Your task to perform on an android device: remove spam from my inbox in the gmail app Image 0: 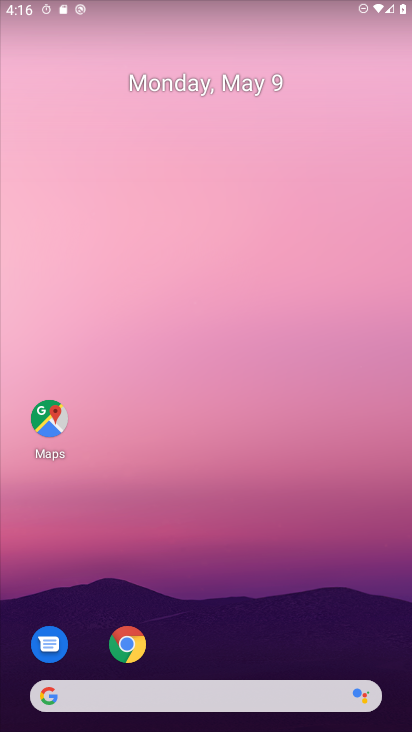
Step 0: drag from (281, 643) to (109, 45)
Your task to perform on an android device: remove spam from my inbox in the gmail app Image 1: 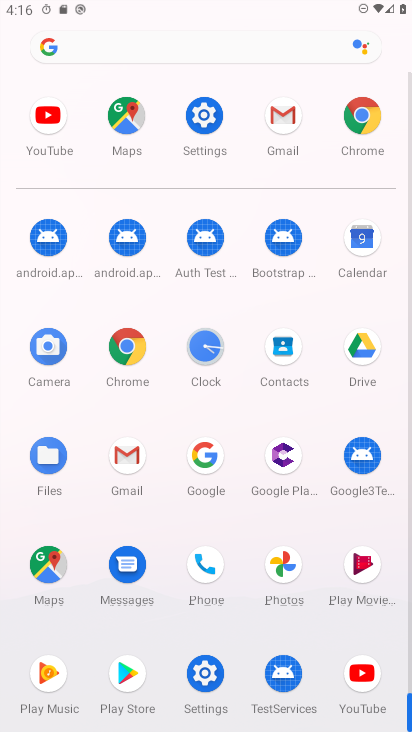
Step 1: click (281, 147)
Your task to perform on an android device: remove spam from my inbox in the gmail app Image 2: 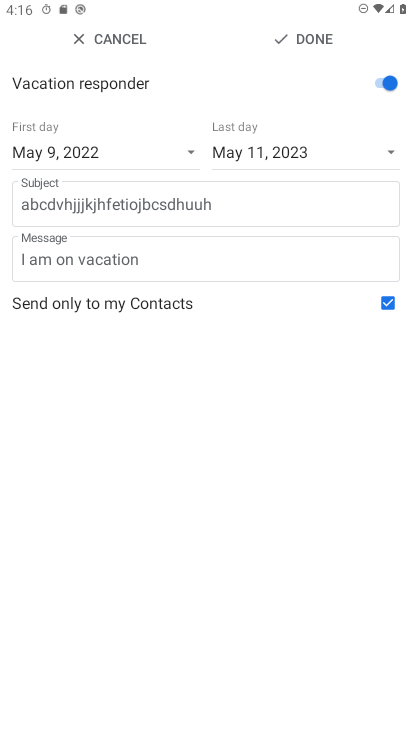
Step 2: press back button
Your task to perform on an android device: remove spam from my inbox in the gmail app Image 3: 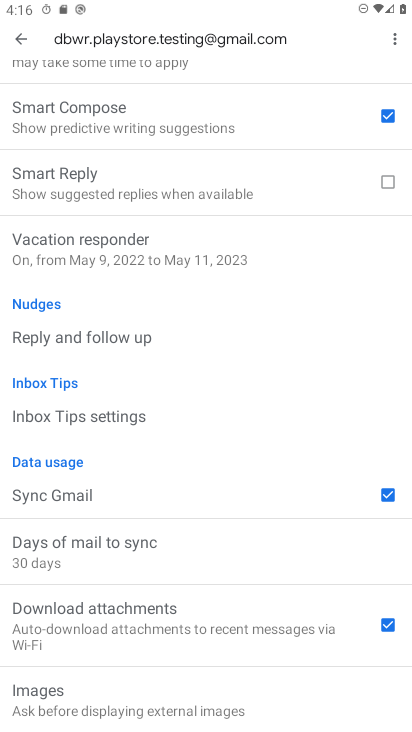
Step 3: press back button
Your task to perform on an android device: remove spam from my inbox in the gmail app Image 4: 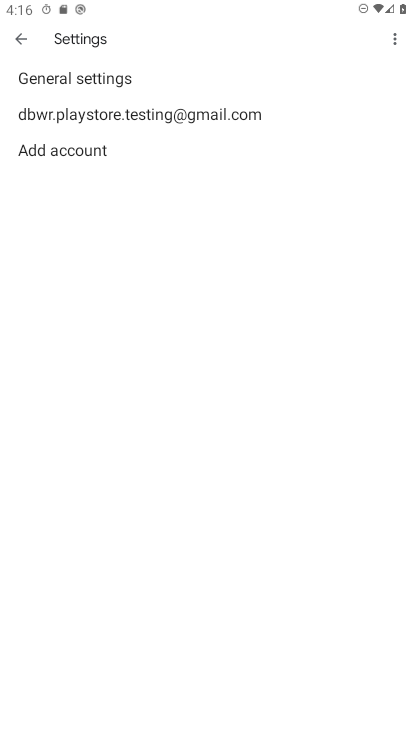
Step 4: press back button
Your task to perform on an android device: remove spam from my inbox in the gmail app Image 5: 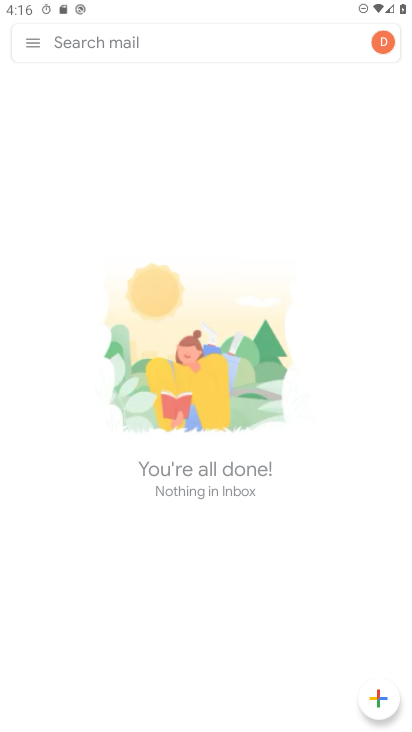
Step 5: click (29, 45)
Your task to perform on an android device: remove spam from my inbox in the gmail app Image 6: 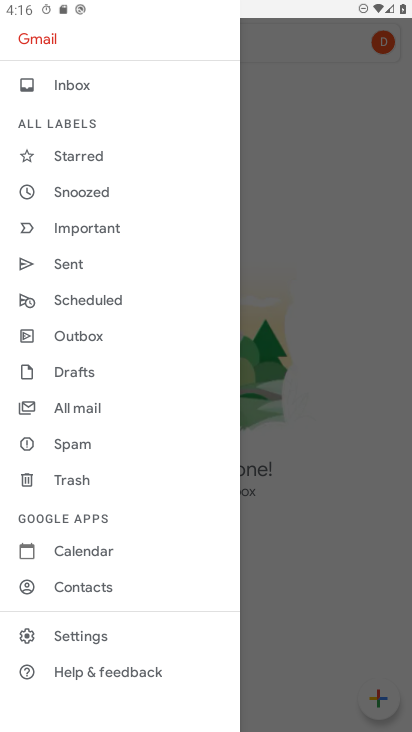
Step 6: click (80, 442)
Your task to perform on an android device: remove spam from my inbox in the gmail app Image 7: 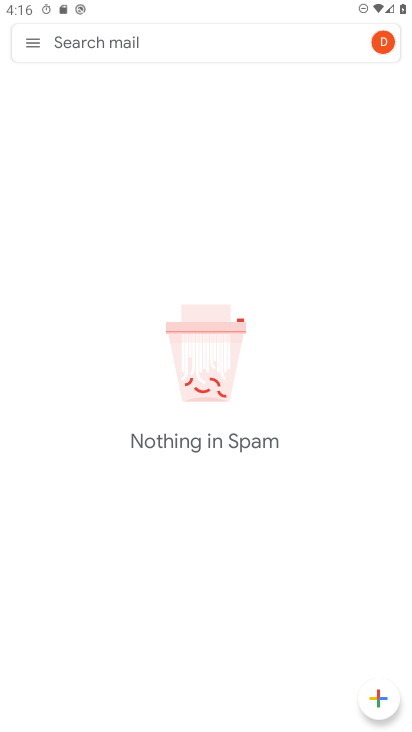
Step 7: task complete